Your task to perform on an android device: empty trash in the gmail app Image 0: 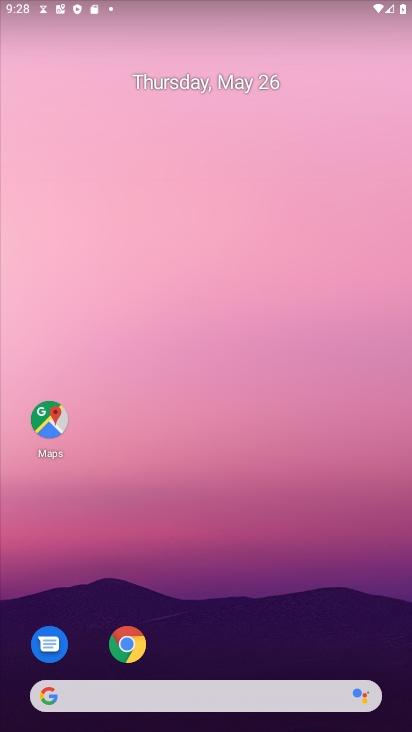
Step 0: drag from (202, 633) to (232, 111)
Your task to perform on an android device: empty trash in the gmail app Image 1: 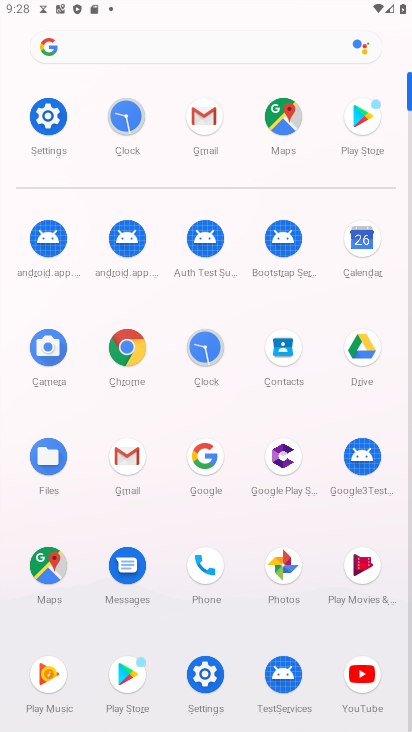
Step 1: click (213, 116)
Your task to perform on an android device: empty trash in the gmail app Image 2: 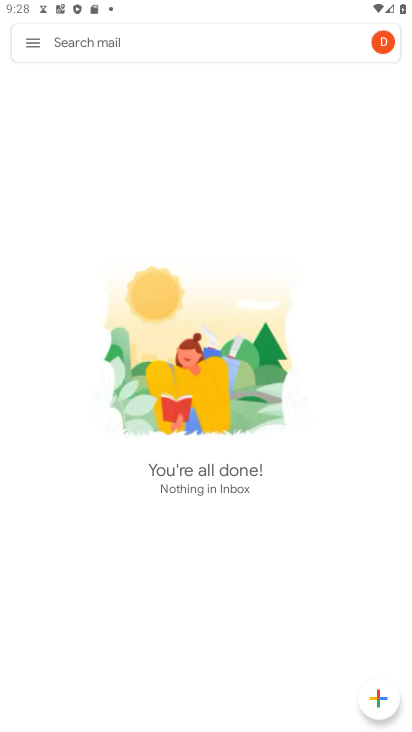
Step 2: click (25, 37)
Your task to perform on an android device: empty trash in the gmail app Image 3: 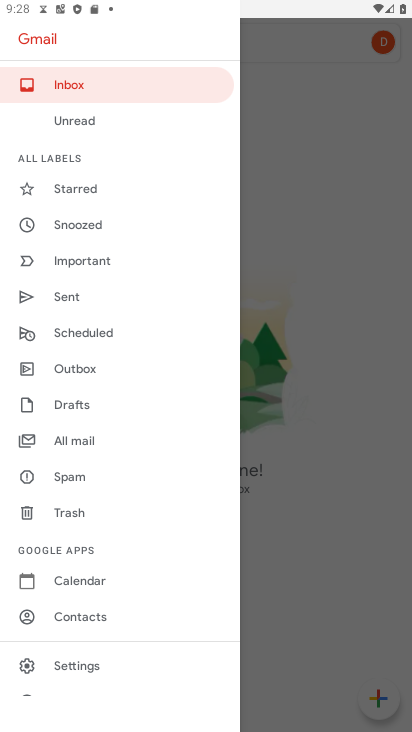
Step 3: click (77, 512)
Your task to perform on an android device: empty trash in the gmail app Image 4: 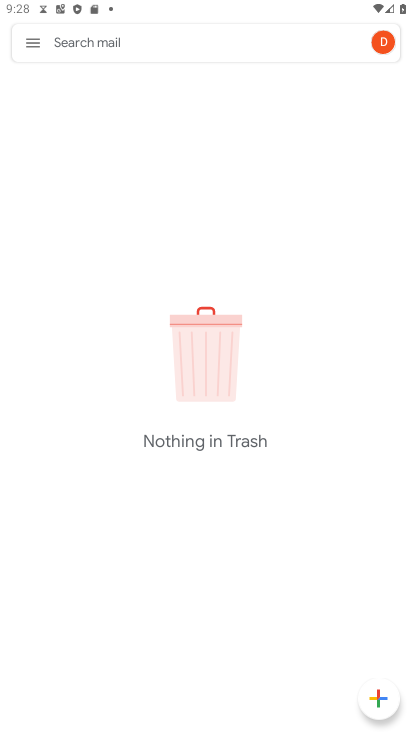
Step 4: task complete